Your task to perform on an android device: find which apps use the phone's location Image 0: 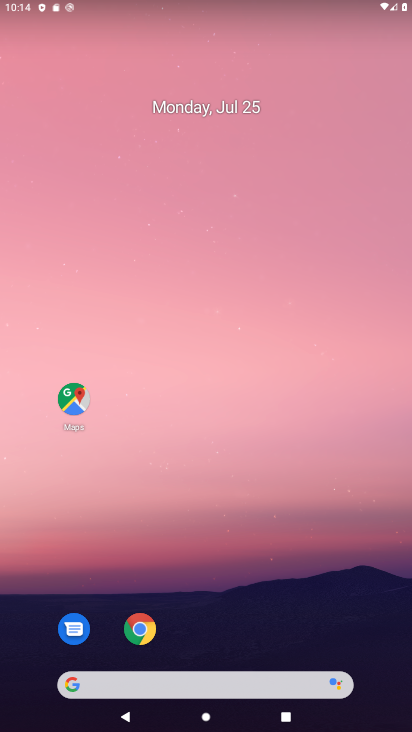
Step 0: drag from (269, 651) to (289, 18)
Your task to perform on an android device: find which apps use the phone's location Image 1: 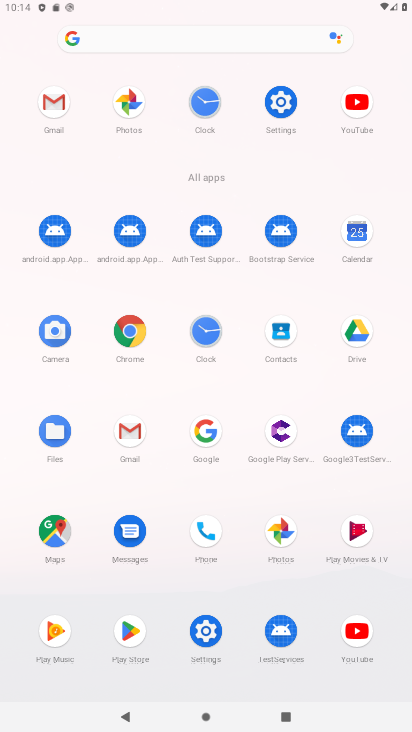
Step 1: click (288, 105)
Your task to perform on an android device: find which apps use the phone's location Image 2: 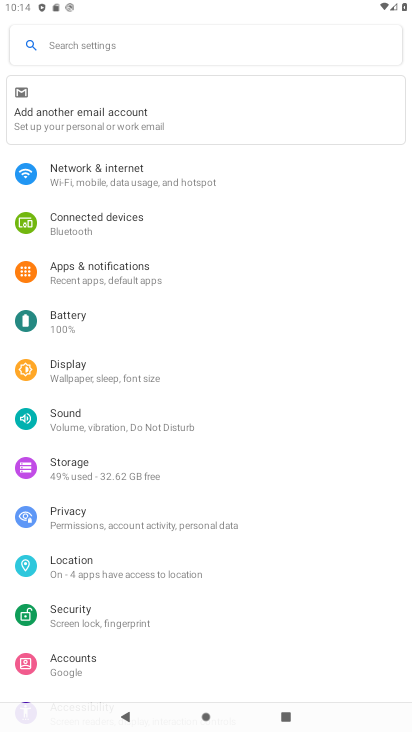
Step 2: click (61, 562)
Your task to perform on an android device: find which apps use the phone's location Image 3: 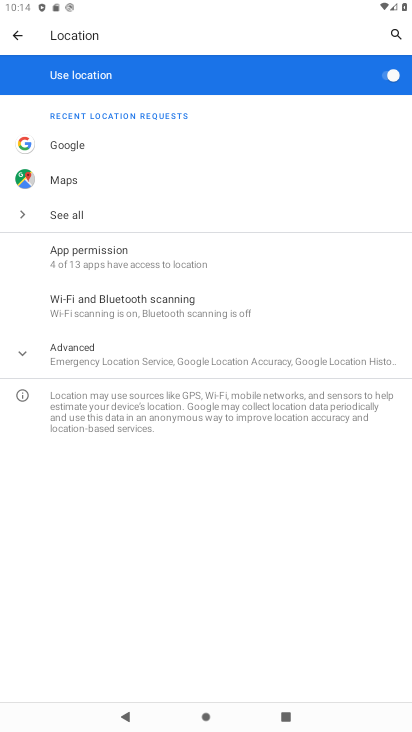
Step 3: click (65, 263)
Your task to perform on an android device: find which apps use the phone's location Image 4: 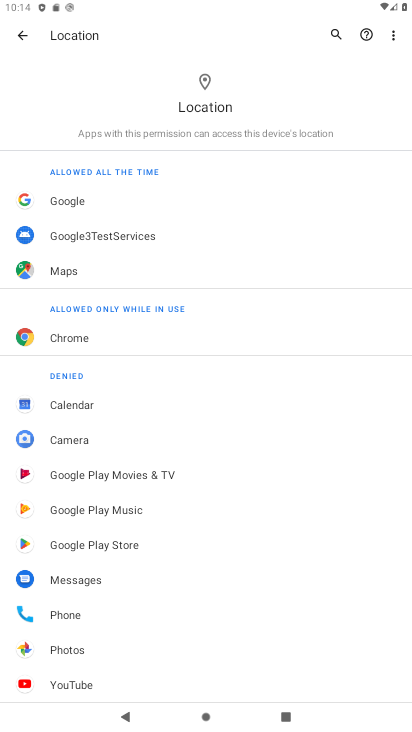
Step 4: task complete